Your task to perform on an android device: Show me recent news Image 0: 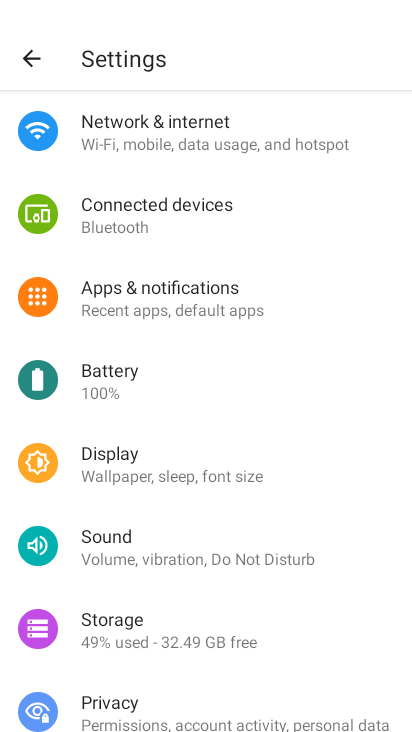
Step 0: press home button
Your task to perform on an android device: Show me recent news Image 1: 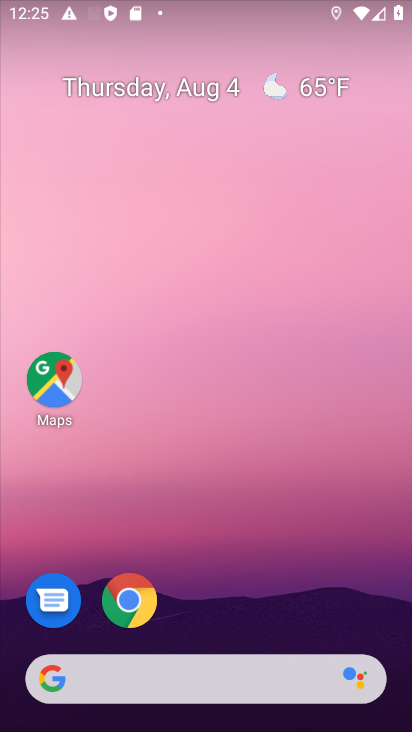
Step 1: click (208, 669)
Your task to perform on an android device: Show me recent news Image 2: 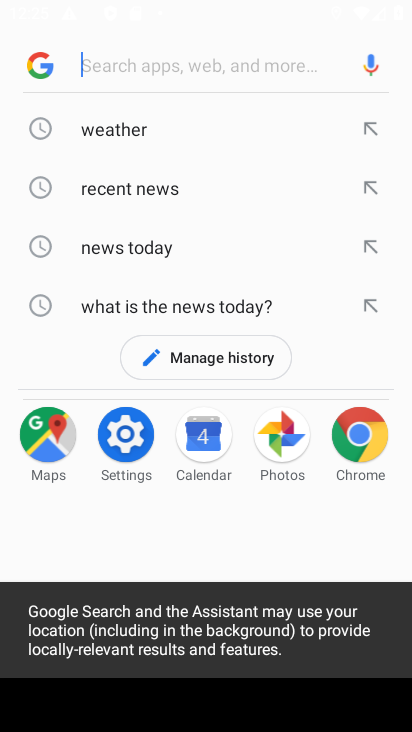
Step 2: click (144, 183)
Your task to perform on an android device: Show me recent news Image 3: 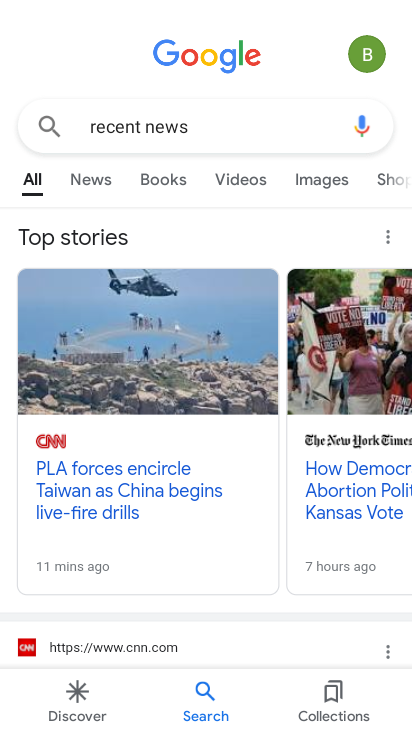
Step 3: task complete